Your task to perform on an android device: turn on translation in the chrome app Image 0: 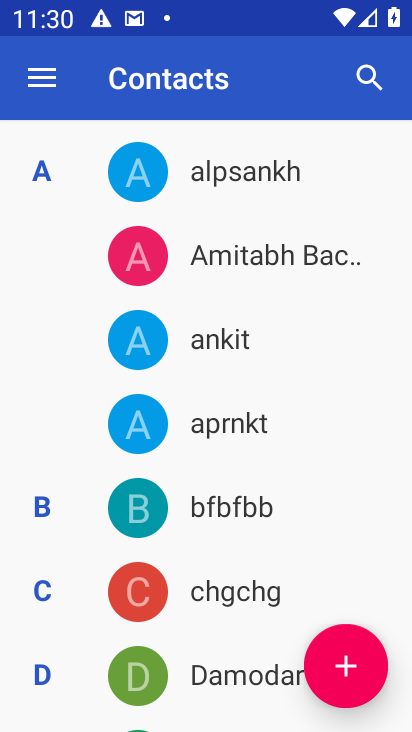
Step 0: press home button
Your task to perform on an android device: turn on translation in the chrome app Image 1: 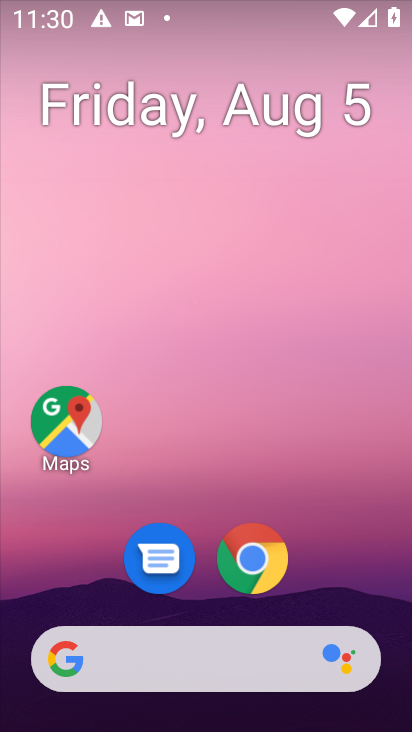
Step 1: drag from (358, 611) to (403, 201)
Your task to perform on an android device: turn on translation in the chrome app Image 2: 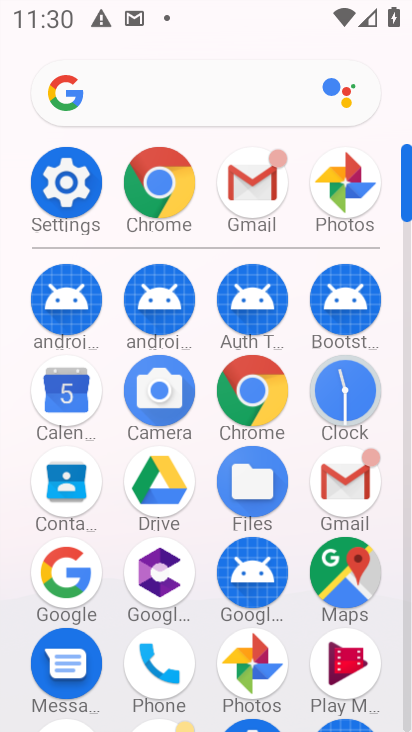
Step 2: click (254, 392)
Your task to perform on an android device: turn on translation in the chrome app Image 3: 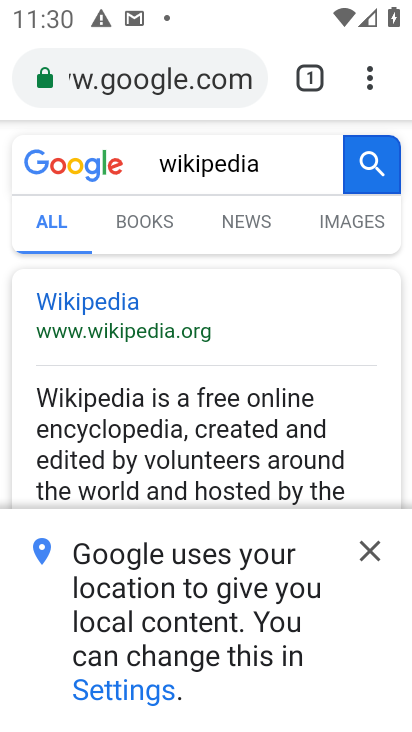
Step 3: click (372, 87)
Your task to perform on an android device: turn on translation in the chrome app Image 4: 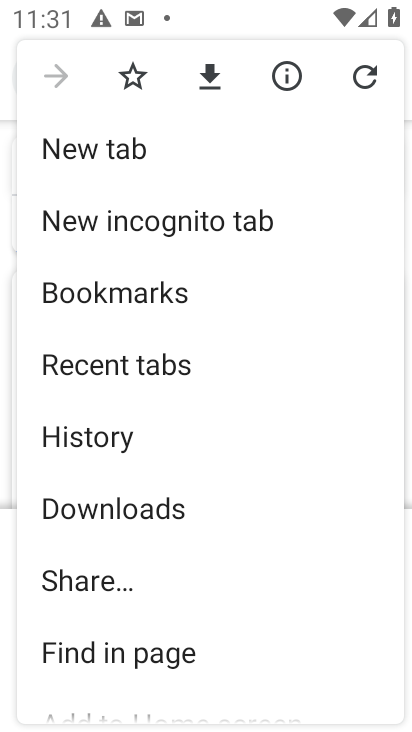
Step 4: drag from (320, 407) to (330, 291)
Your task to perform on an android device: turn on translation in the chrome app Image 5: 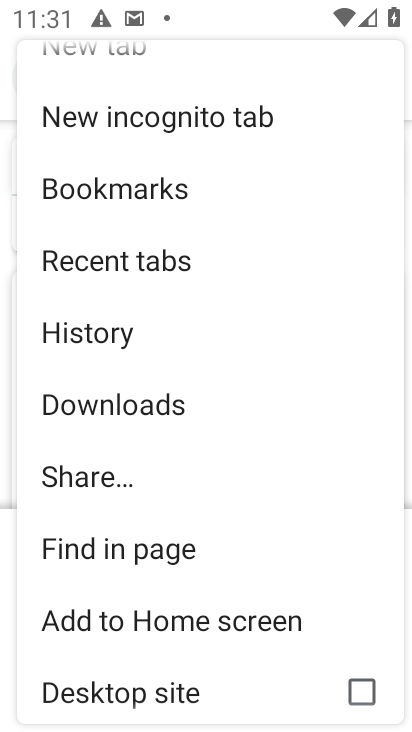
Step 5: drag from (310, 436) to (321, 333)
Your task to perform on an android device: turn on translation in the chrome app Image 6: 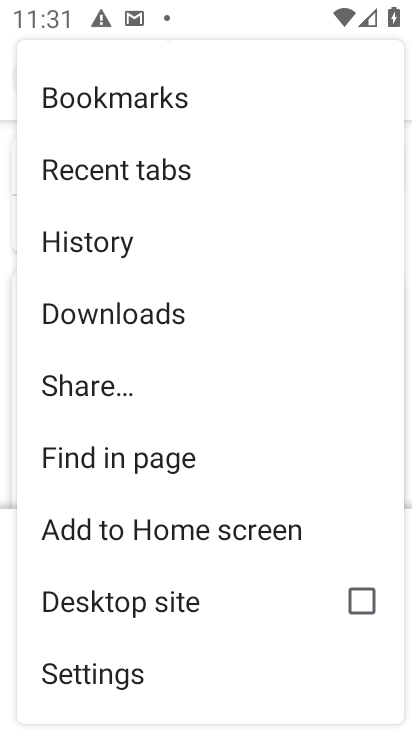
Step 6: drag from (302, 446) to (296, 303)
Your task to perform on an android device: turn on translation in the chrome app Image 7: 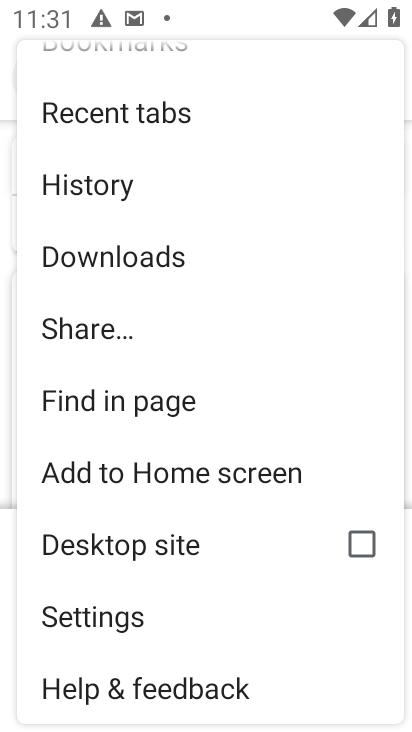
Step 7: click (251, 610)
Your task to perform on an android device: turn on translation in the chrome app Image 8: 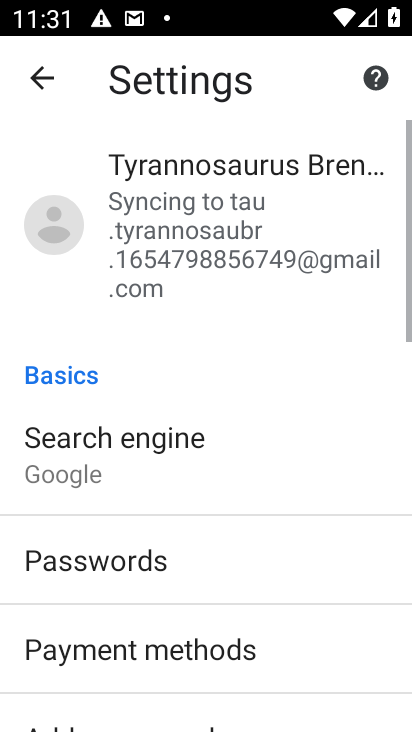
Step 8: drag from (257, 591) to (272, 428)
Your task to perform on an android device: turn on translation in the chrome app Image 9: 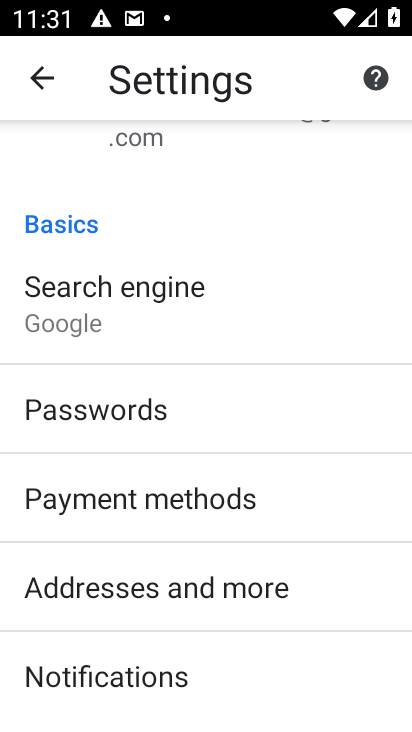
Step 9: drag from (310, 550) to (328, 423)
Your task to perform on an android device: turn on translation in the chrome app Image 10: 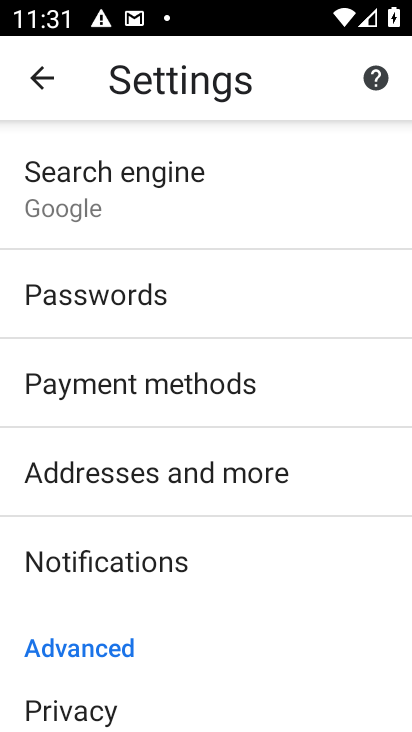
Step 10: drag from (307, 597) to (321, 424)
Your task to perform on an android device: turn on translation in the chrome app Image 11: 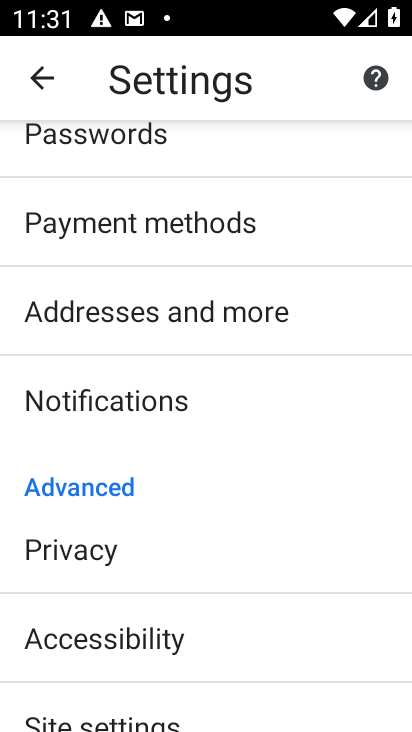
Step 11: drag from (295, 587) to (306, 455)
Your task to perform on an android device: turn on translation in the chrome app Image 12: 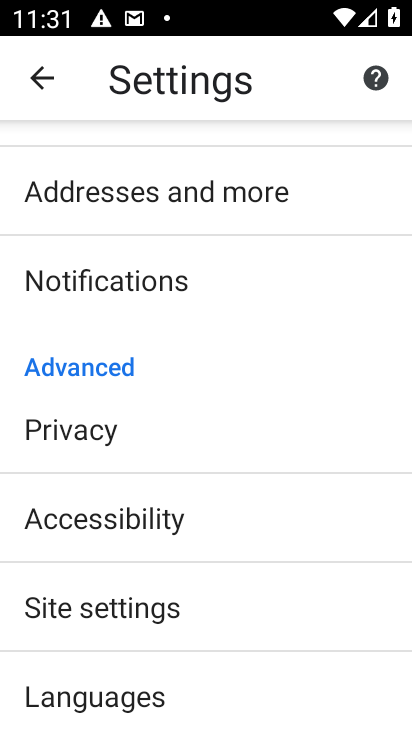
Step 12: drag from (282, 570) to (294, 467)
Your task to perform on an android device: turn on translation in the chrome app Image 13: 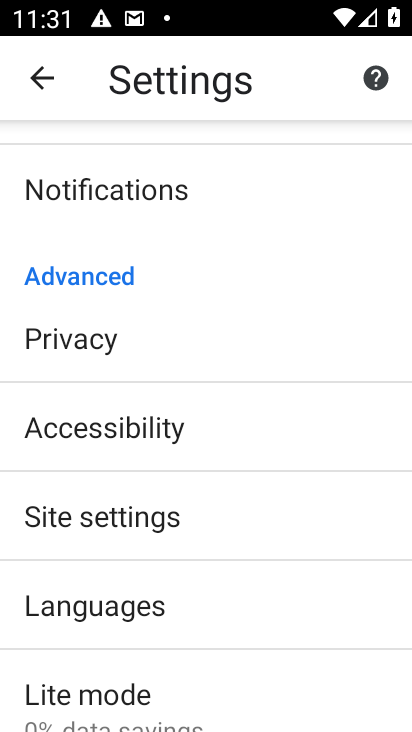
Step 13: click (279, 600)
Your task to perform on an android device: turn on translation in the chrome app Image 14: 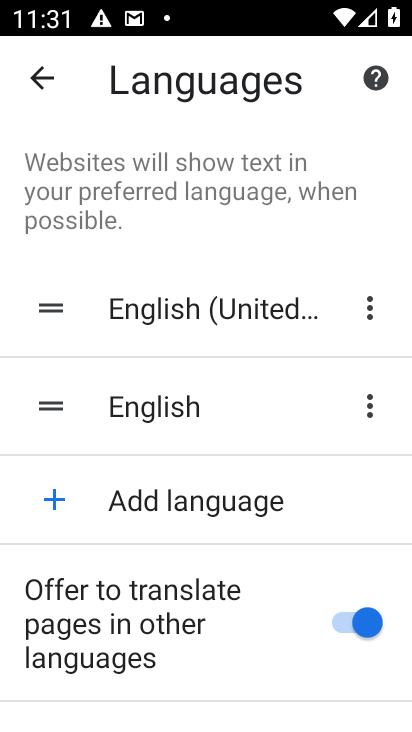
Step 14: task complete